Your task to perform on an android device: turn off sleep mode Image 0: 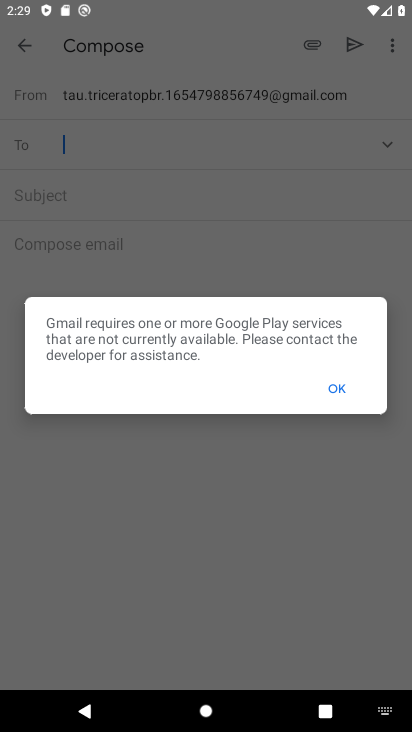
Step 0: press back button
Your task to perform on an android device: turn off sleep mode Image 1: 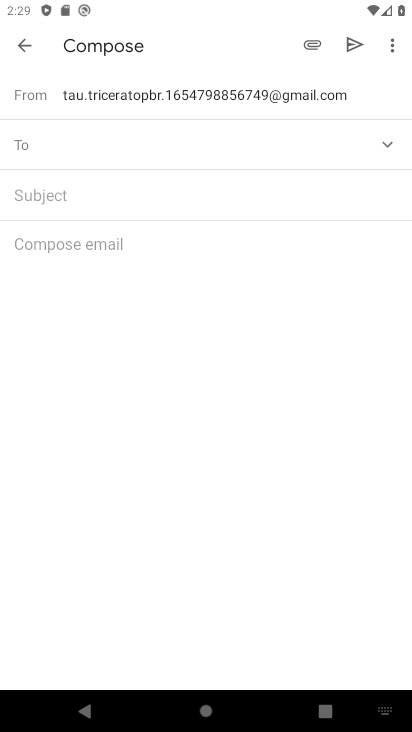
Step 1: press back button
Your task to perform on an android device: turn off sleep mode Image 2: 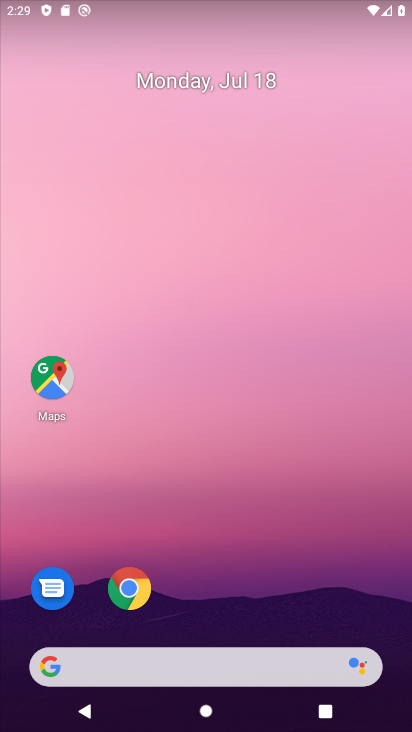
Step 2: drag from (174, 584) to (178, 37)
Your task to perform on an android device: turn off sleep mode Image 3: 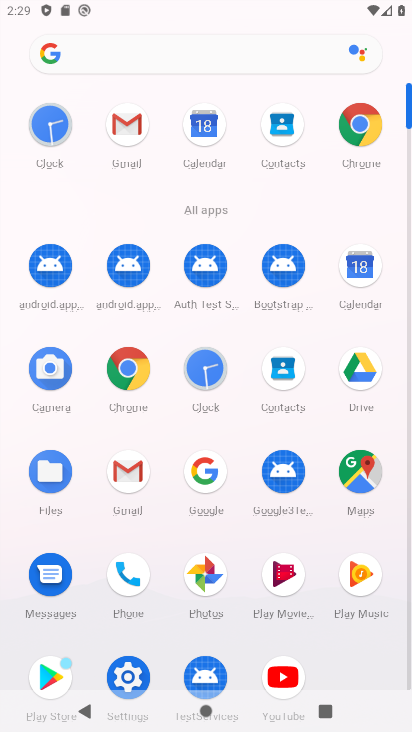
Step 3: click (135, 666)
Your task to perform on an android device: turn off sleep mode Image 4: 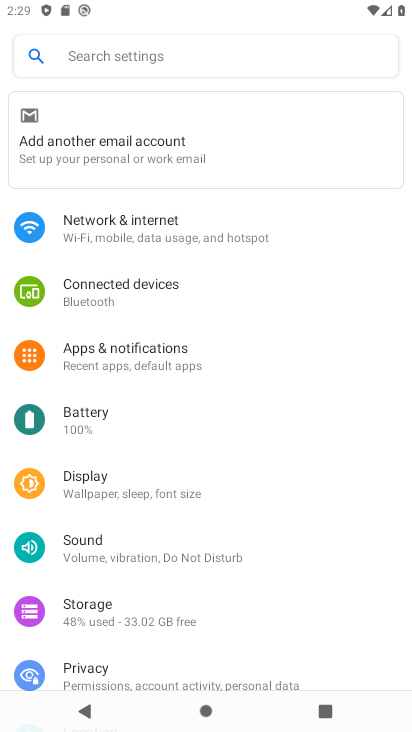
Step 4: click (229, 52)
Your task to perform on an android device: turn off sleep mode Image 5: 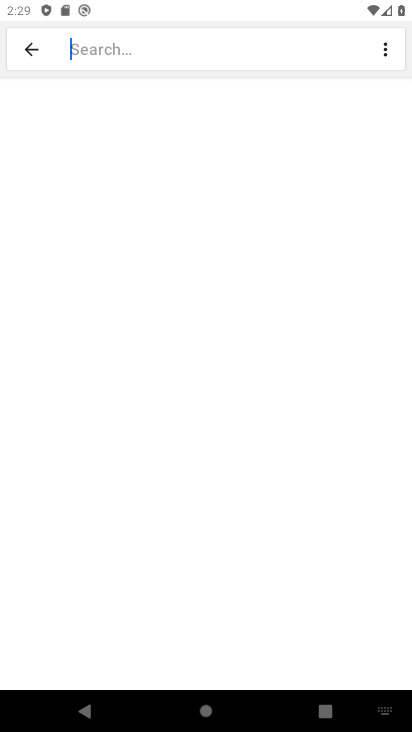
Step 5: type "sleep mode"
Your task to perform on an android device: turn off sleep mode Image 6: 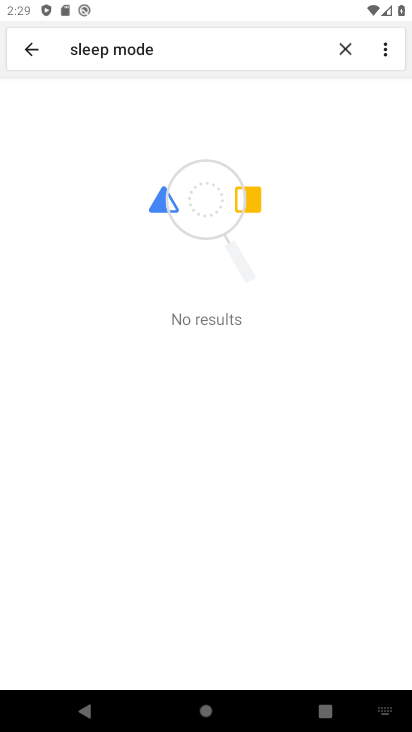
Step 6: task complete